Your task to perform on an android device: change the upload size in google photos Image 0: 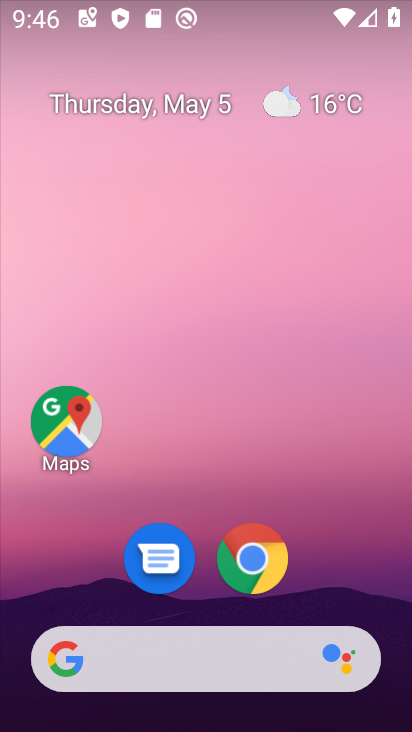
Step 0: drag from (357, 575) to (316, 79)
Your task to perform on an android device: change the upload size in google photos Image 1: 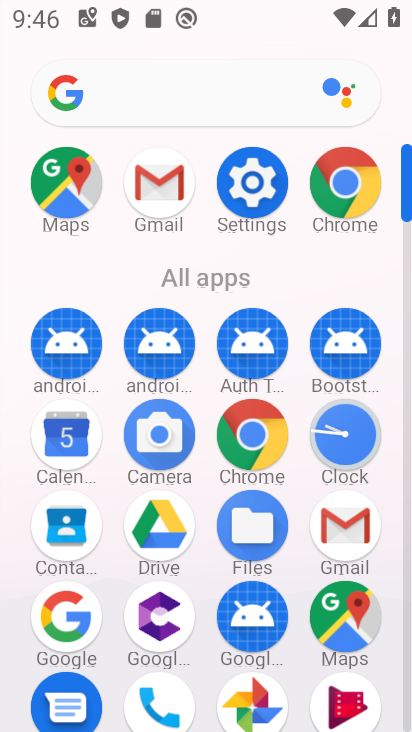
Step 1: click (260, 698)
Your task to perform on an android device: change the upload size in google photos Image 2: 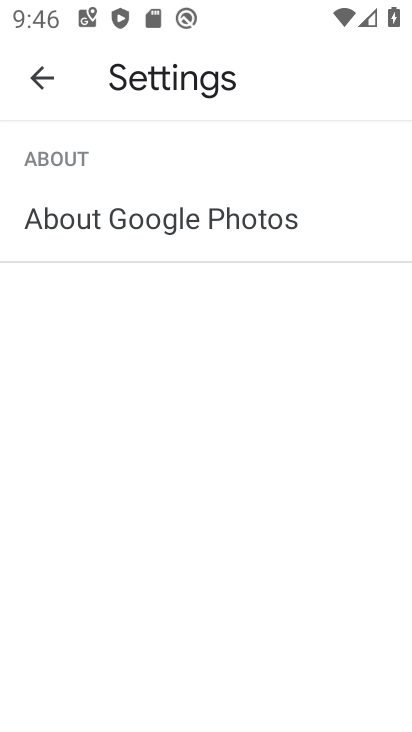
Step 2: press home button
Your task to perform on an android device: change the upload size in google photos Image 3: 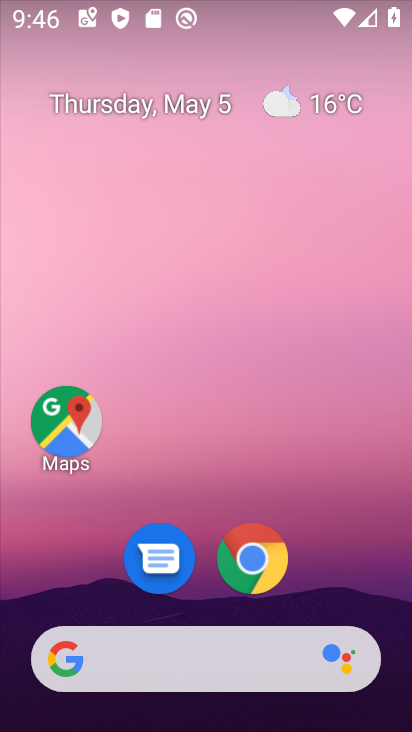
Step 3: drag from (363, 555) to (329, 126)
Your task to perform on an android device: change the upload size in google photos Image 4: 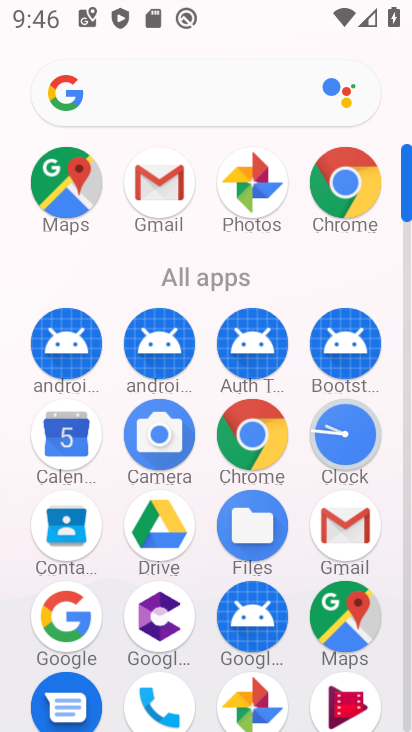
Step 4: click (260, 197)
Your task to perform on an android device: change the upload size in google photos Image 5: 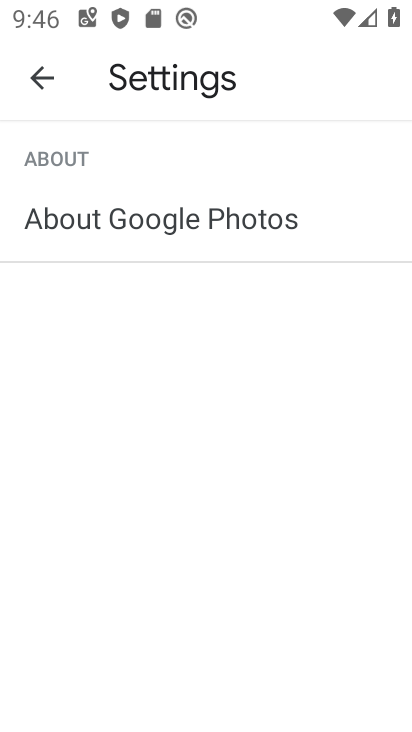
Step 5: click (43, 84)
Your task to perform on an android device: change the upload size in google photos Image 6: 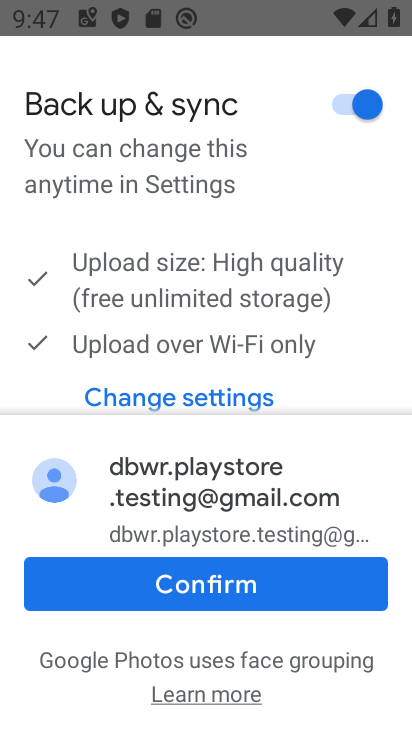
Step 6: click (273, 599)
Your task to perform on an android device: change the upload size in google photos Image 7: 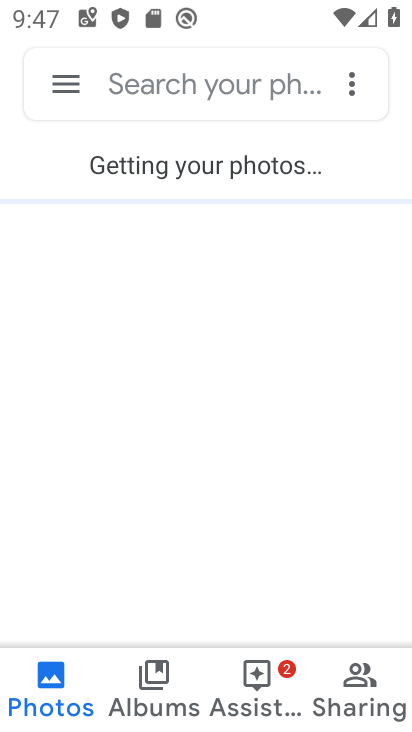
Step 7: click (271, 681)
Your task to perform on an android device: change the upload size in google photos Image 8: 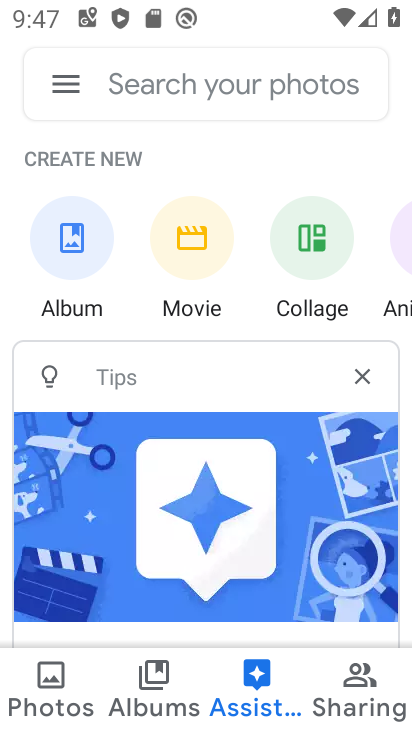
Step 8: click (80, 252)
Your task to perform on an android device: change the upload size in google photos Image 9: 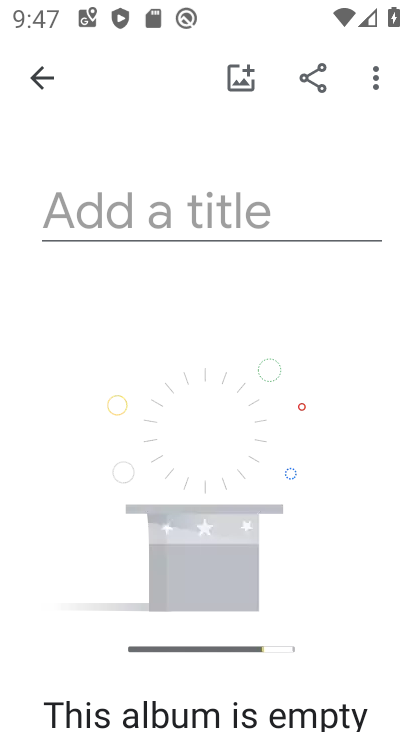
Step 9: click (223, 207)
Your task to perform on an android device: change the upload size in google photos Image 10: 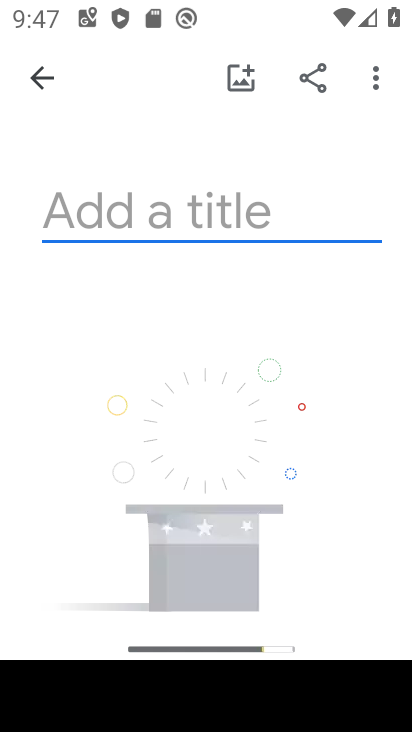
Step 10: type "ndjnjdnfjndj"
Your task to perform on an android device: change the upload size in google photos Image 11: 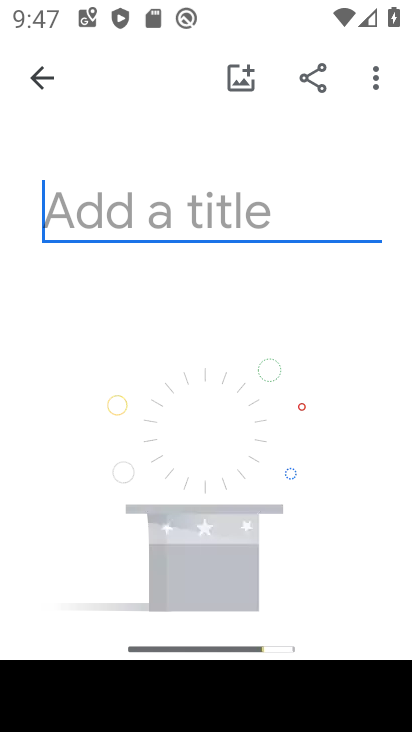
Step 11: click (339, 329)
Your task to perform on an android device: change the upload size in google photos Image 12: 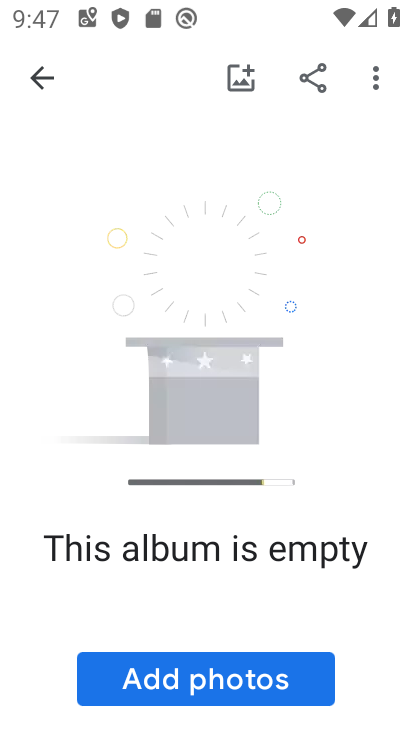
Step 12: click (267, 676)
Your task to perform on an android device: change the upload size in google photos Image 13: 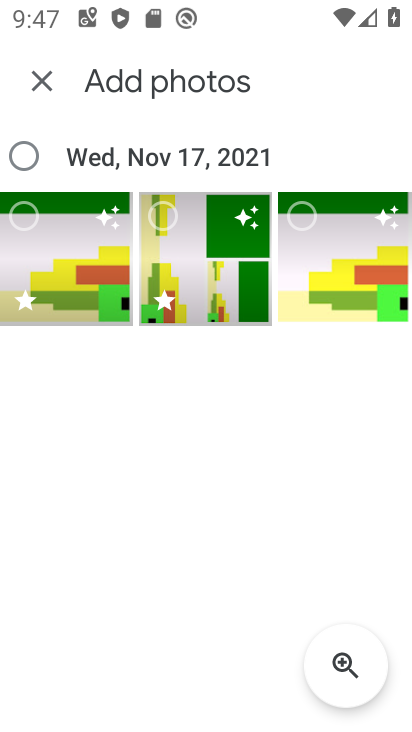
Step 13: click (212, 287)
Your task to perform on an android device: change the upload size in google photos Image 14: 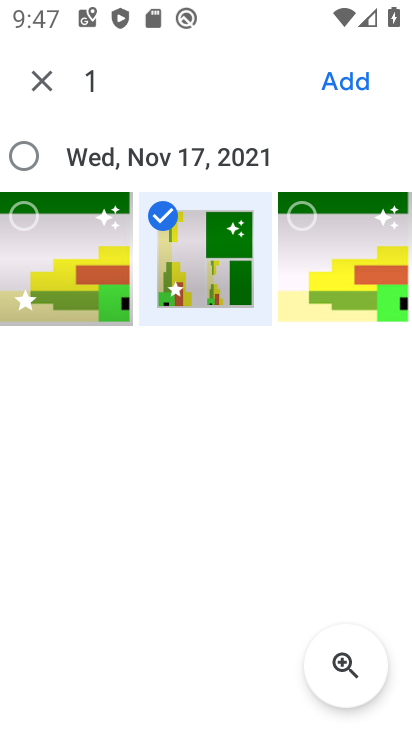
Step 14: click (84, 237)
Your task to perform on an android device: change the upload size in google photos Image 15: 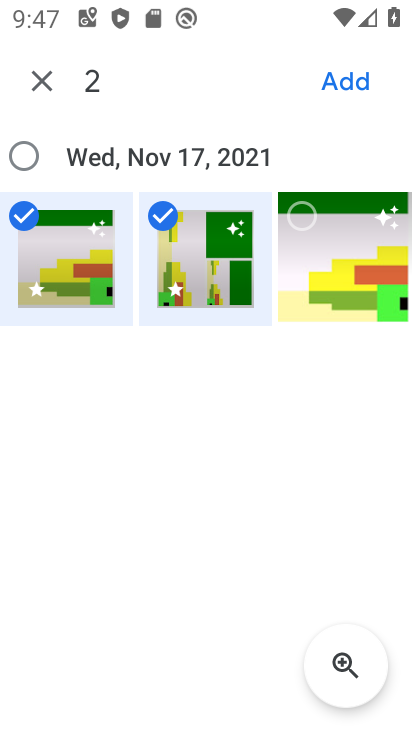
Step 15: click (325, 231)
Your task to perform on an android device: change the upload size in google photos Image 16: 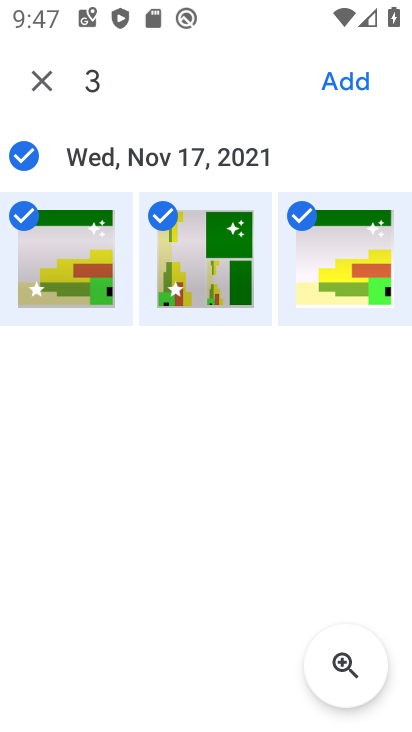
Step 16: click (351, 95)
Your task to perform on an android device: change the upload size in google photos Image 17: 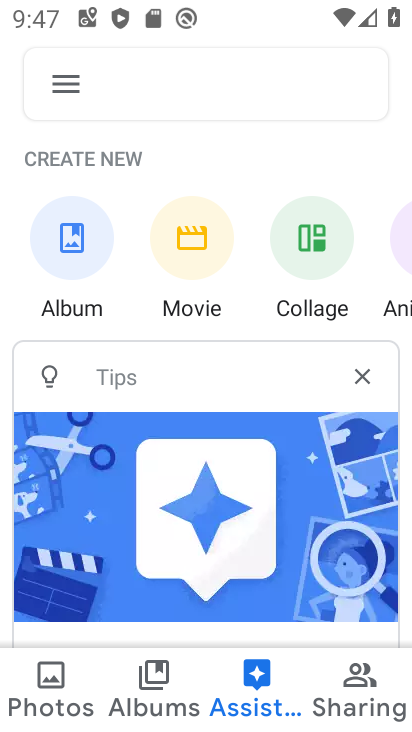
Step 17: task complete